Your task to perform on an android device: Open battery settings Image 0: 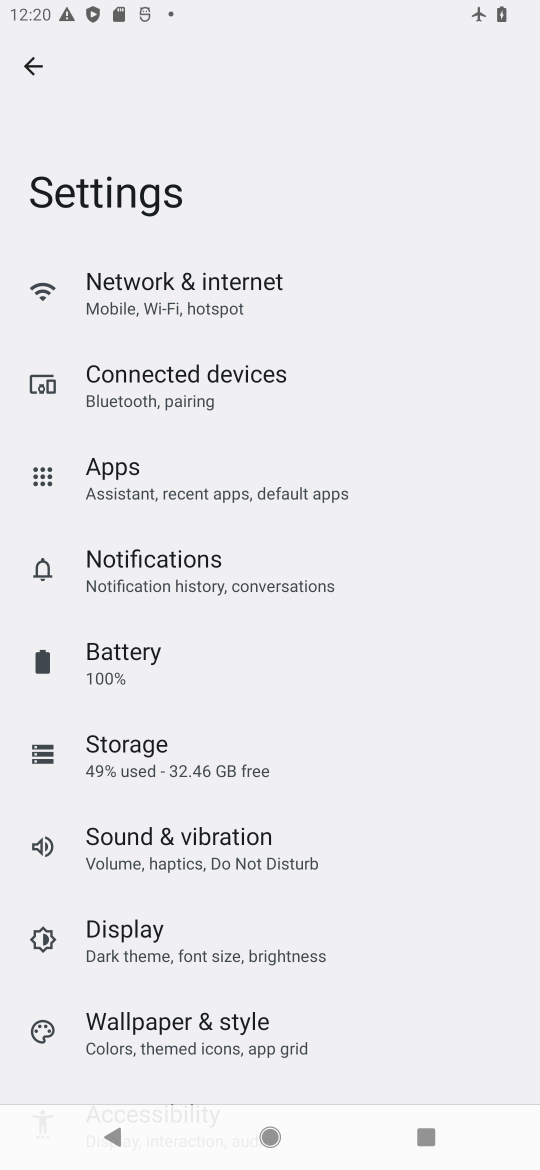
Step 0: click (99, 645)
Your task to perform on an android device: Open battery settings Image 1: 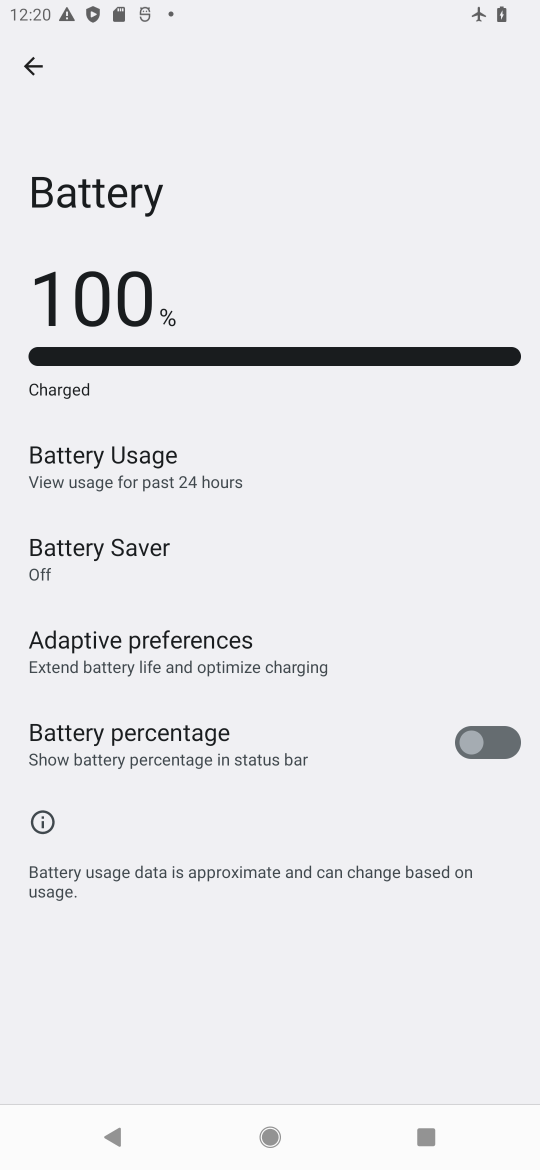
Step 1: task complete